Your task to perform on an android device: change the upload size in google photos Image 0: 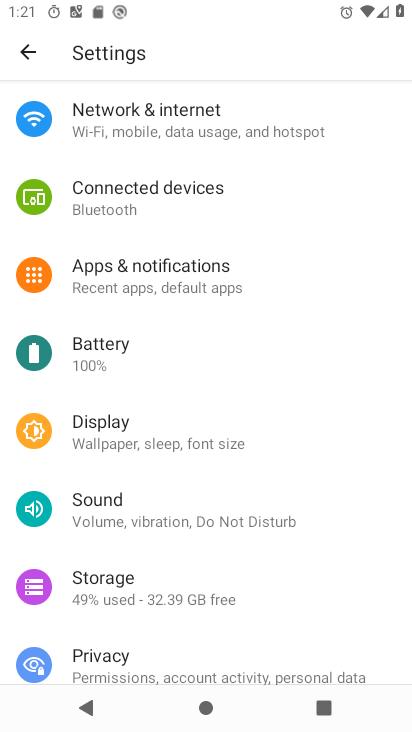
Step 0: press home button
Your task to perform on an android device: change the upload size in google photos Image 1: 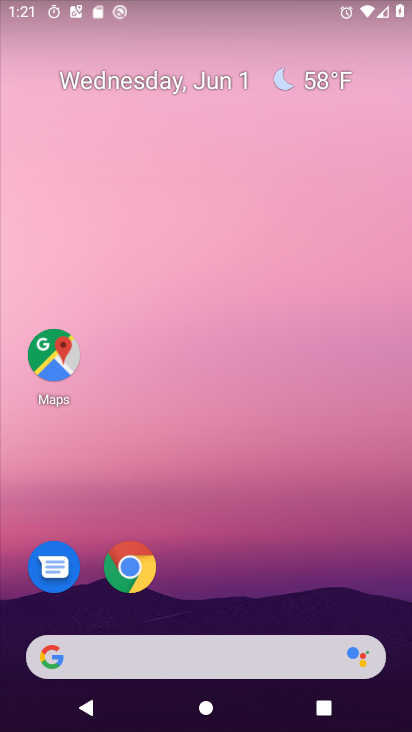
Step 1: drag from (217, 600) to (284, 91)
Your task to perform on an android device: change the upload size in google photos Image 2: 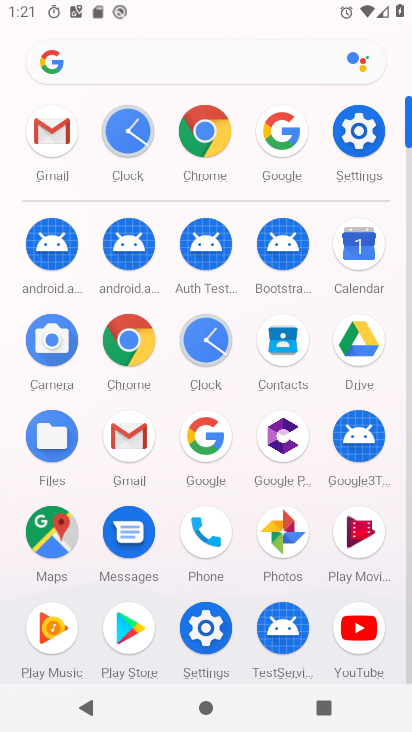
Step 2: click (271, 535)
Your task to perform on an android device: change the upload size in google photos Image 3: 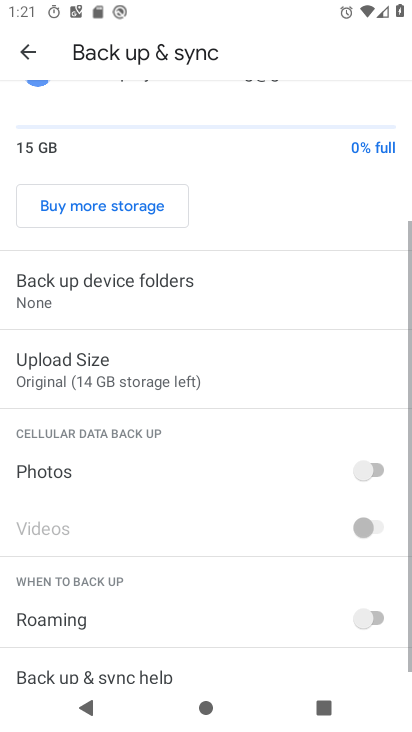
Step 3: click (101, 365)
Your task to perform on an android device: change the upload size in google photos Image 4: 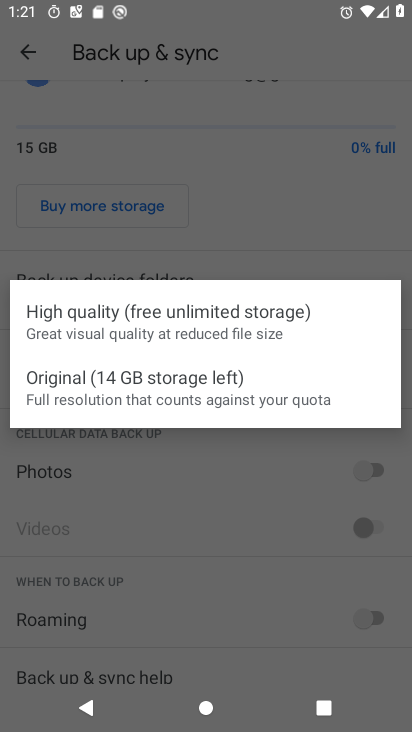
Step 4: drag from (96, 387) to (194, 207)
Your task to perform on an android device: change the upload size in google photos Image 5: 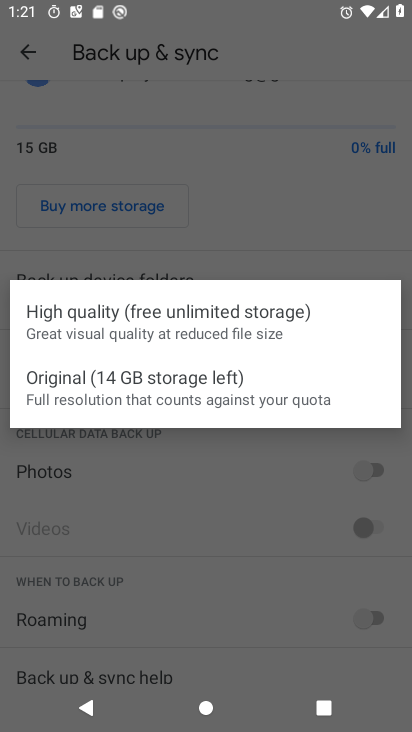
Step 5: click (144, 295)
Your task to perform on an android device: change the upload size in google photos Image 6: 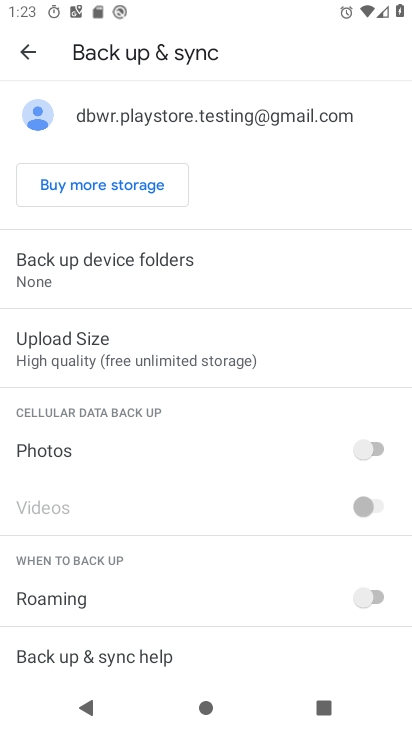
Step 6: task complete